Your task to perform on an android device: Toggle the flashlight Image 0: 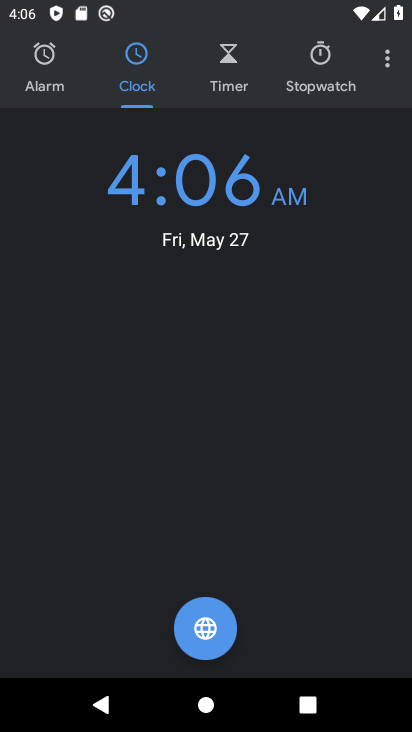
Step 0: press home button
Your task to perform on an android device: Toggle the flashlight Image 1: 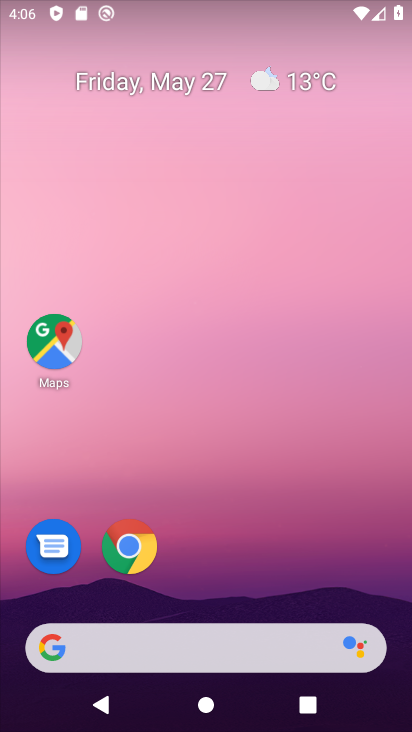
Step 1: task complete